Your task to perform on an android device: open a new tab in the chrome app Image 0: 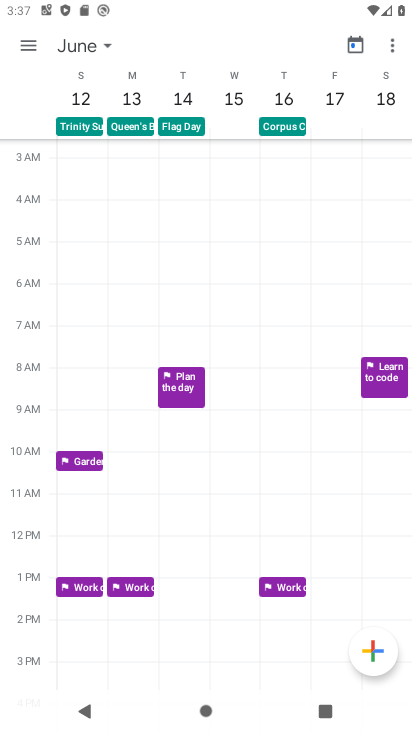
Step 0: press home button
Your task to perform on an android device: open a new tab in the chrome app Image 1: 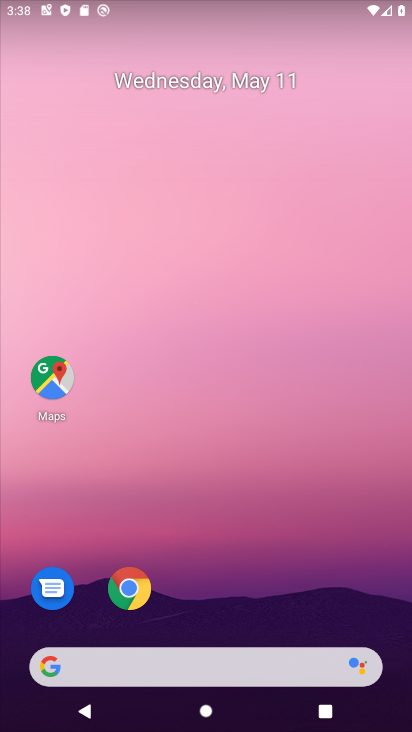
Step 1: click (130, 587)
Your task to perform on an android device: open a new tab in the chrome app Image 2: 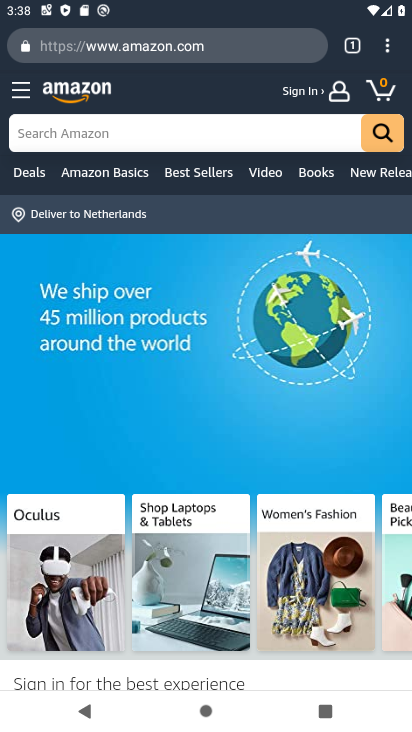
Step 2: click (22, 91)
Your task to perform on an android device: open a new tab in the chrome app Image 3: 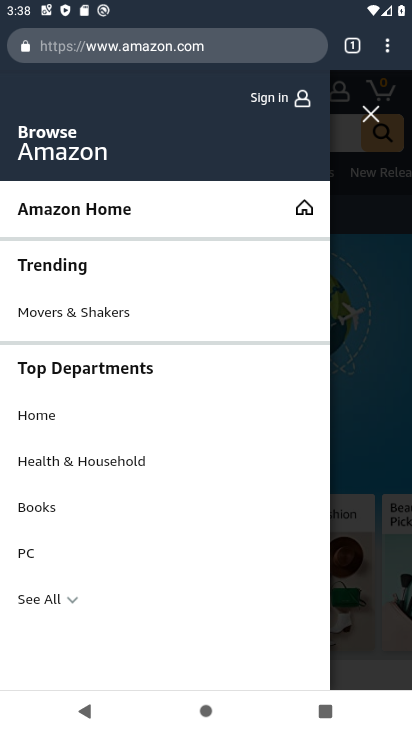
Step 3: click (394, 48)
Your task to perform on an android device: open a new tab in the chrome app Image 4: 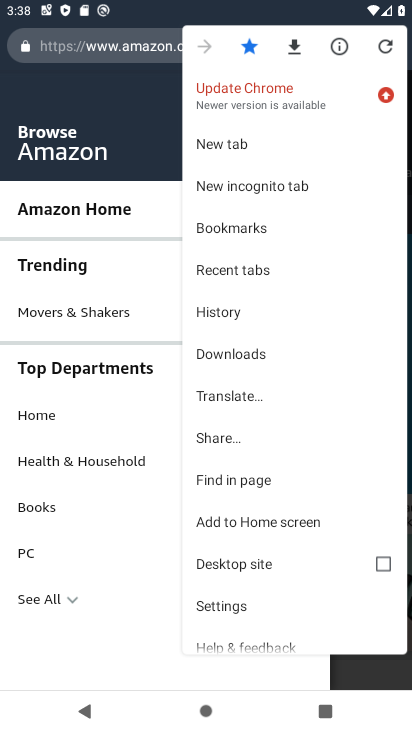
Step 4: click (281, 151)
Your task to perform on an android device: open a new tab in the chrome app Image 5: 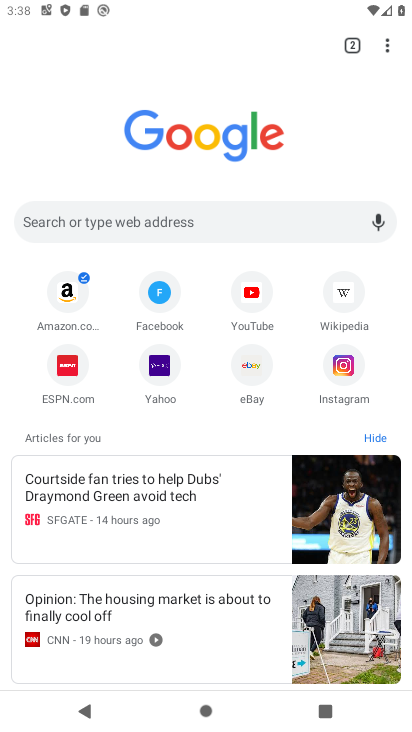
Step 5: task complete